Your task to perform on an android device: Is it going to rain this weekend? Image 0: 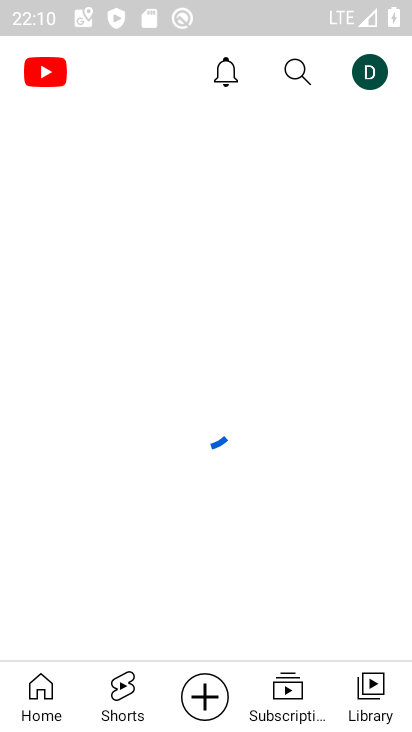
Step 0: press home button
Your task to perform on an android device: Is it going to rain this weekend? Image 1: 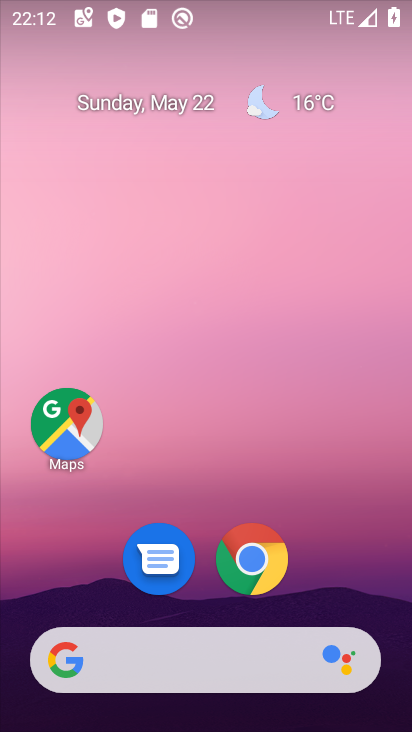
Step 1: drag from (301, 678) to (303, 269)
Your task to perform on an android device: Is it going to rain this weekend? Image 2: 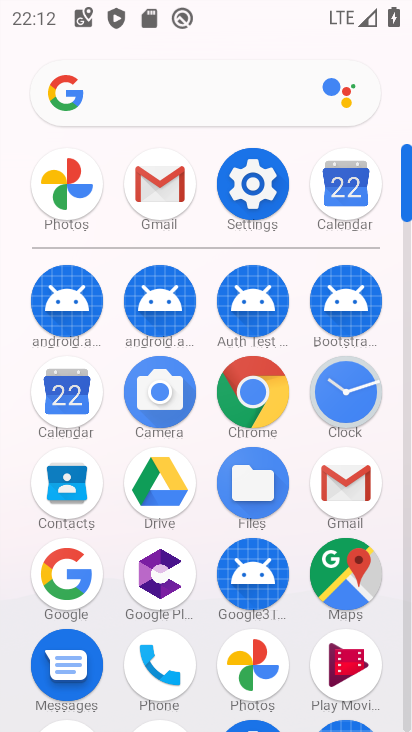
Step 2: click (89, 405)
Your task to perform on an android device: Is it going to rain this weekend? Image 3: 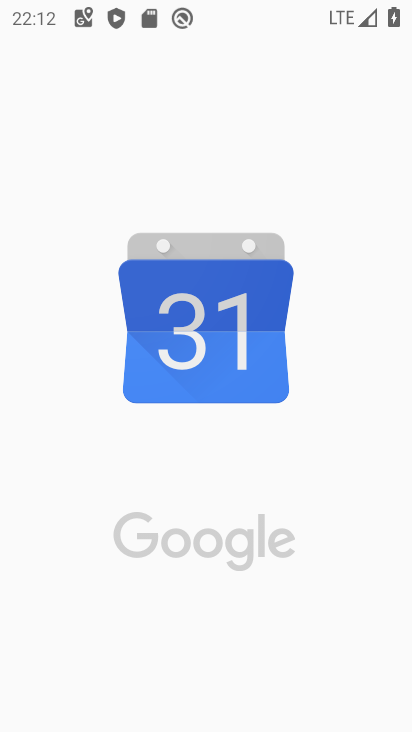
Step 3: press home button
Your task to perform on an android device: Is it going to rain this weekend? Image 4: 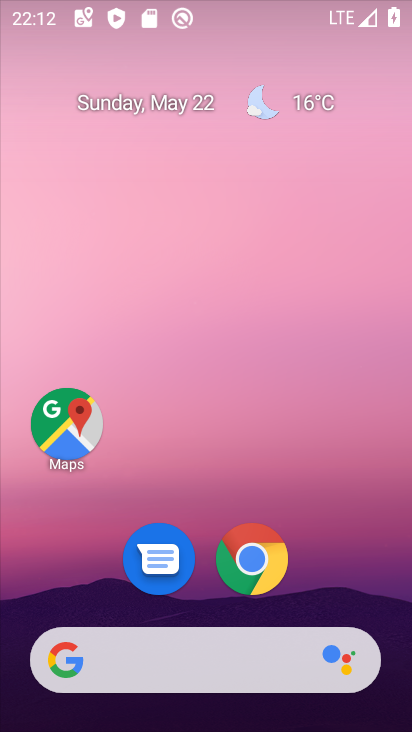
Step 4: drag from (250, 666) to (268, 313)
Your task to perform on an android device: Is it going to rain this weekend? Image 5: 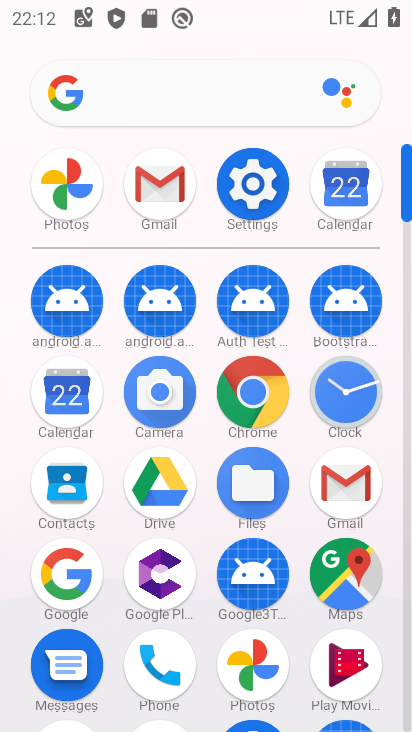
Step 5: click (197, 112)
Your task to perform on an android device: Is it going to rain this weekend? Image 6: 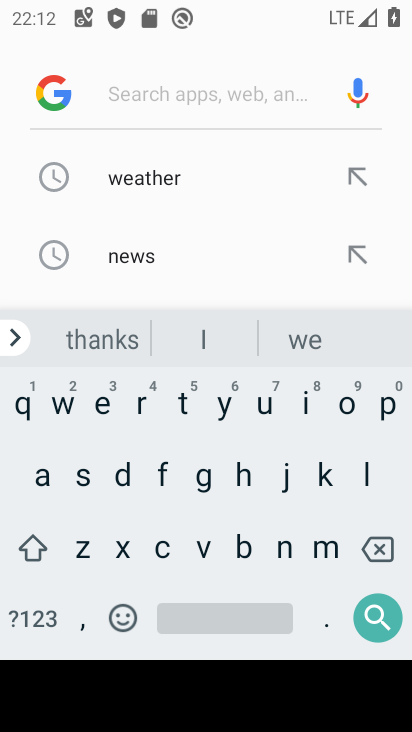
Step 6: click (147, 175)
Your task to perform on an android device: Is it going to rain this weekend? Image 7: 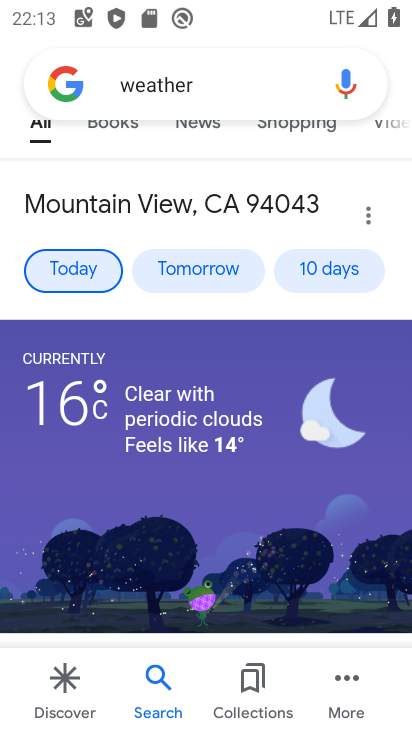
Step 7: click (339, 282)
Your task to perform on an android device: Is it going to rain this weekend? Image 8: 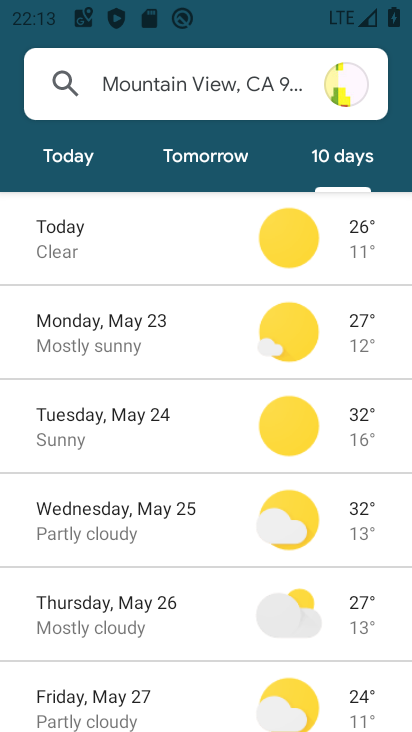
Step 8: task complete